Your task to perform on an android device: Find coffee shops on Maps Image 0: 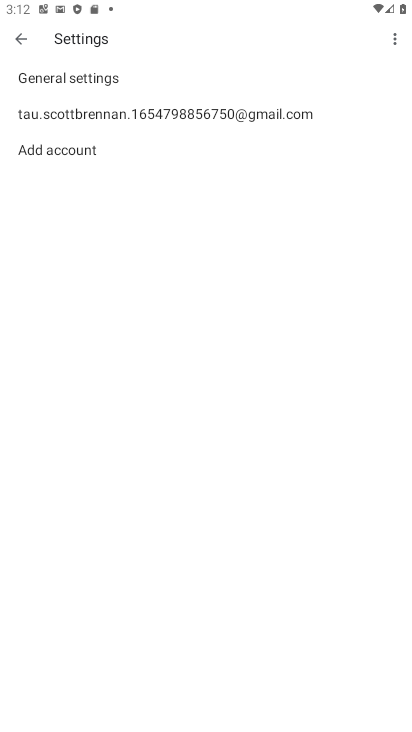
Step 0: press home button
Your task to perform on an android device: Find coffee shops on Maps Image 1: 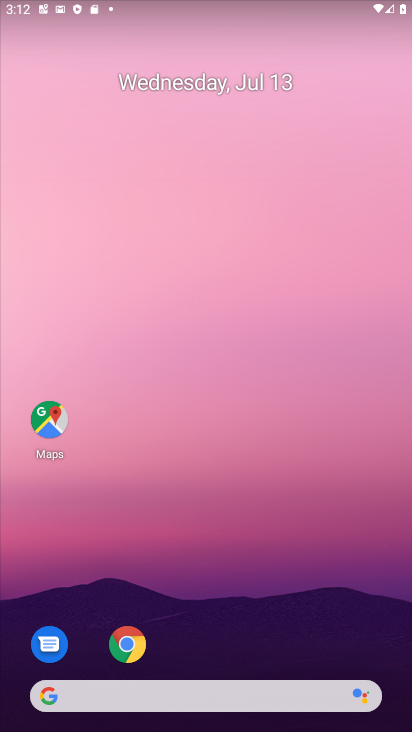
Step 1: click (77, 697)
Your task to perform on an android device: Find coffee shops on Maps Image 2: 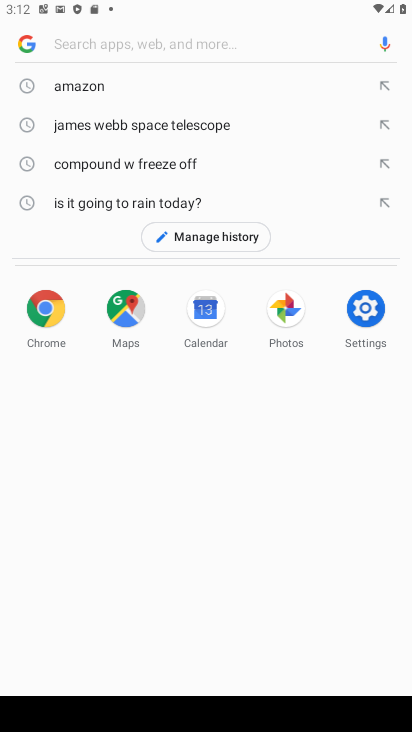
Step 2: type "coffee shops"
Your task to perform on an android device: Find coffee shops on Maps Image 3: 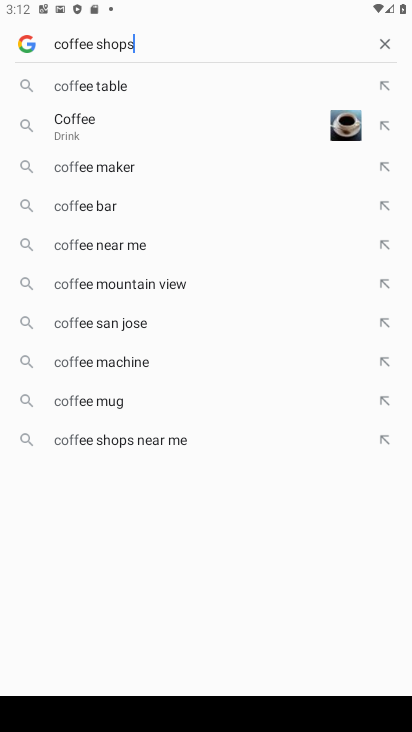
Step 3: type ""
Your task to perform on an android device: Find coffee shops on Maps Image 4: 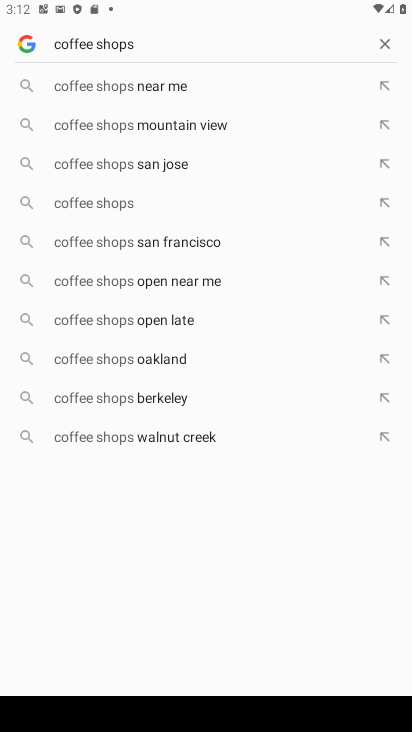
Step 4: type ""
Your task to perform on an android device: Find coffee shops on Maps Image 5: 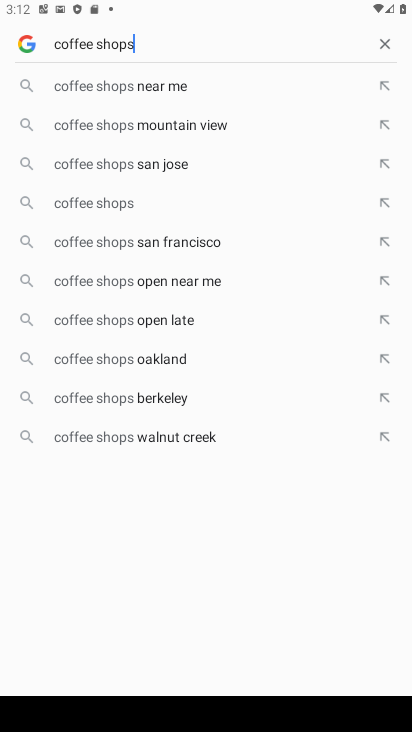
Step 5: type ""
Your task to perform on an android device: Find coffee shops on Maps Image 6: 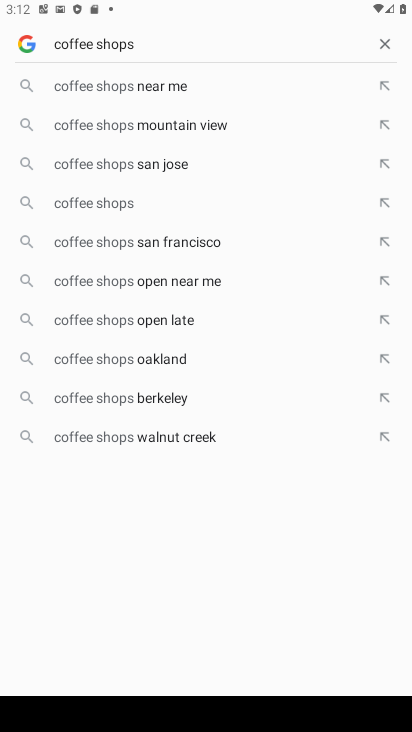
Step 6: task complete